Your task to perform on an android device: find which apps use the phone's location Image 0: 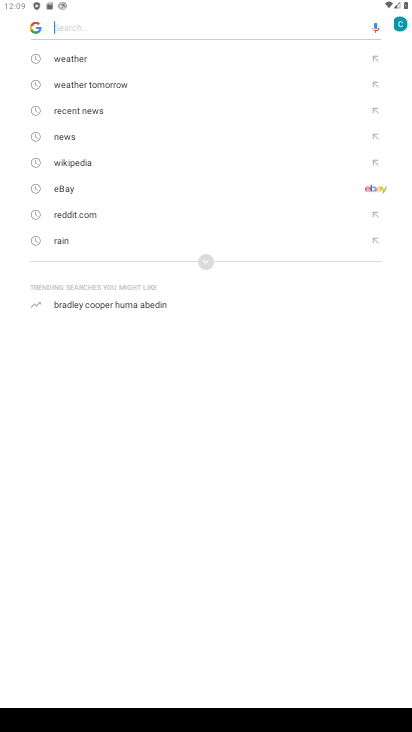
Step 0: press home button
Your task to perform on an android device: find which apps use the phone's location Image 1: 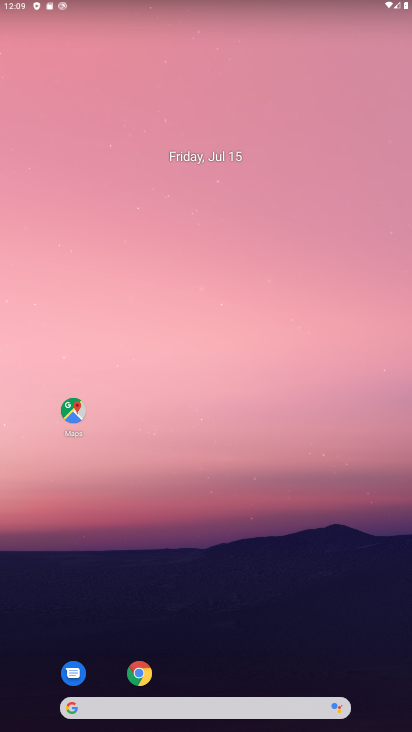
Step 1: drag from (230, 686) to (253, 222)
Your task to perform on an android device: find which apps use the phone's location Image 2: 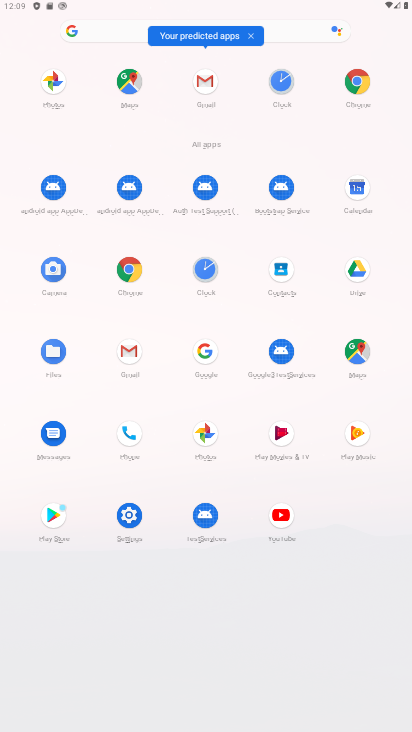
Step 2: click (133, 509)
Your task to perform on an android device: find which apps use the phone's location Image 3: 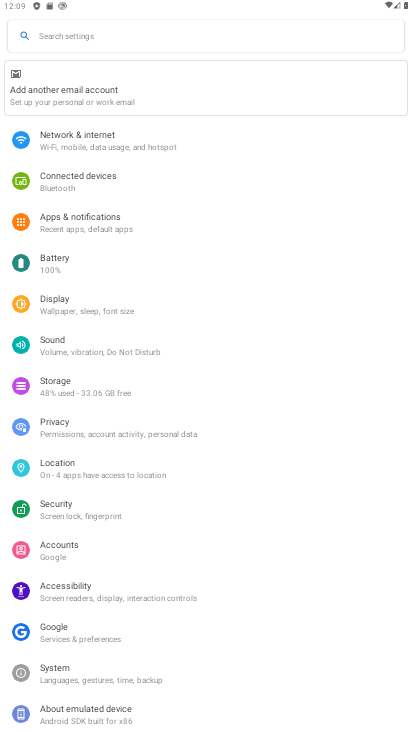
Step 3: click (72, 465)
Your task to perform on an android device: find which apps use the phone's location Image 4: 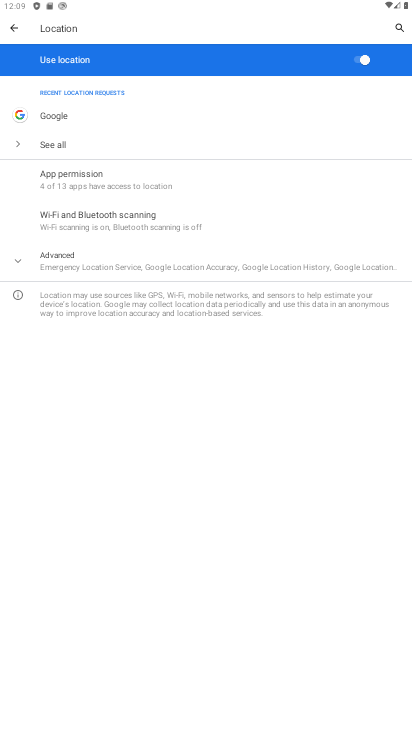
Step 4: click (127, 186)
Your task to perform on an android device: find which apps use the phone's location Image 5: 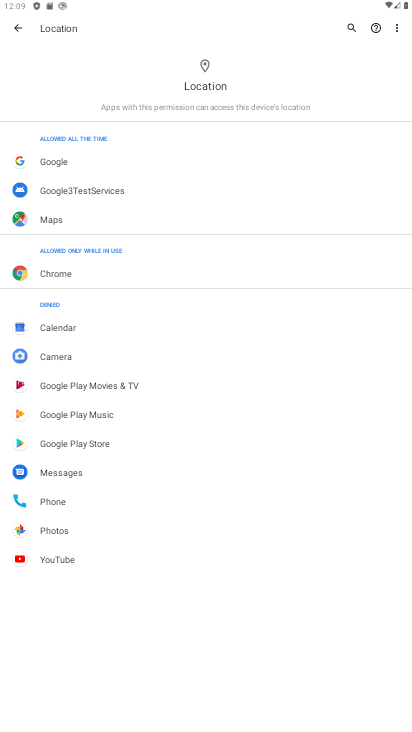
Step 5: task complete